Your task to perform on an android device: Open wifi settings Image 0: 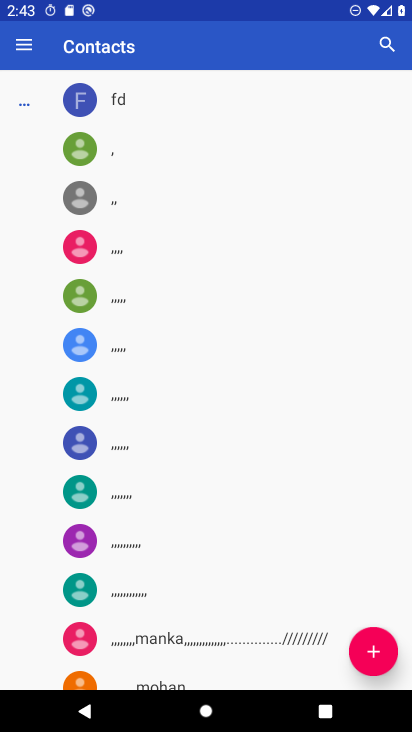
Step 0: press home button
Your task to perform on an android device: Open wifi settings Image 1: 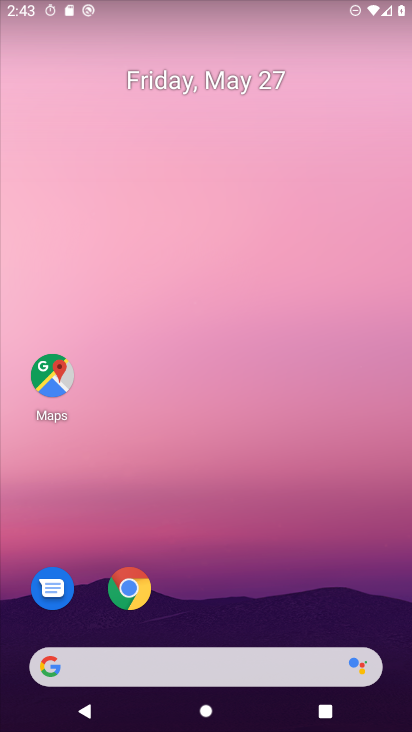
Step 1: drag from (273, 495) to (255, 38)
Your task to perform on an android device: Open wifi settings Image 2: 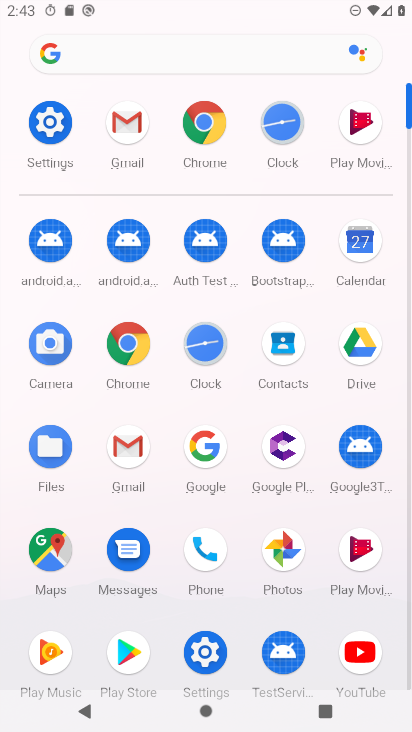
Step 2: click (51, 118)
Your task to perform on an android device: Open wifi settings Image 3: 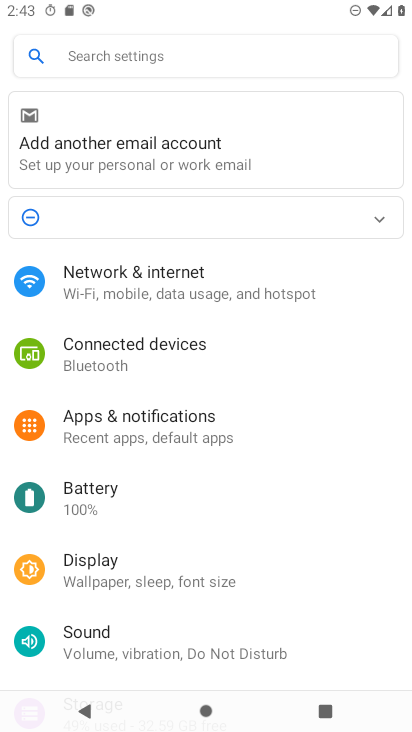
Step 3: click (143, 272)
Your task to perform on an android device: Open wifi settings Image 4: 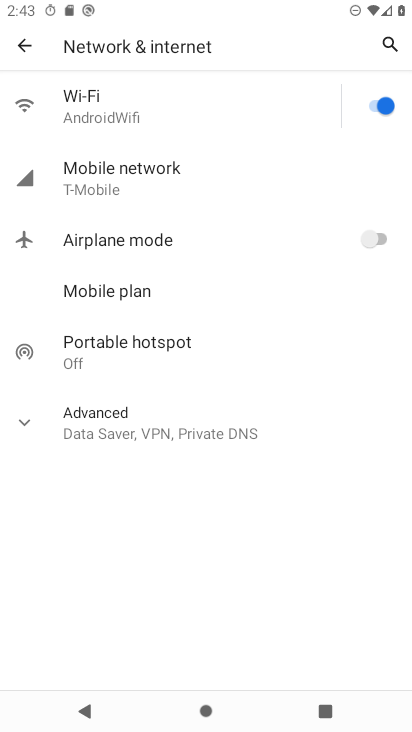
Step 4: click (99, 99)
Your task to perform on an android device: Open wifi settings Image 5: 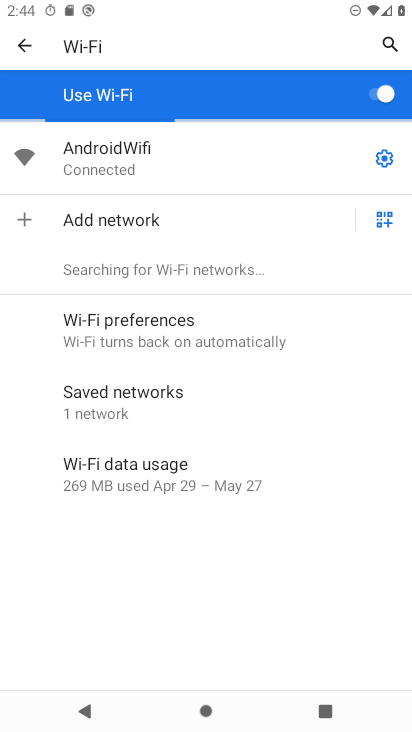
Step 5: task complete